Your task to perform on an android device: open a bookmark in the chrome app Image 0: 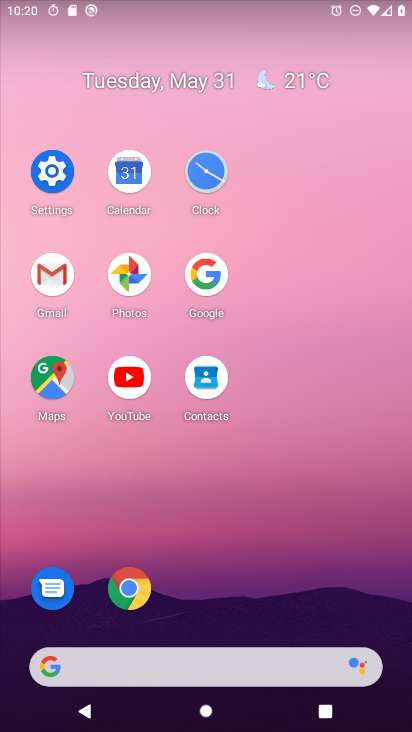
Step 0: click (123, 583)
Your task to perform on an android device: open a bookmark in the chrome app Image 1: 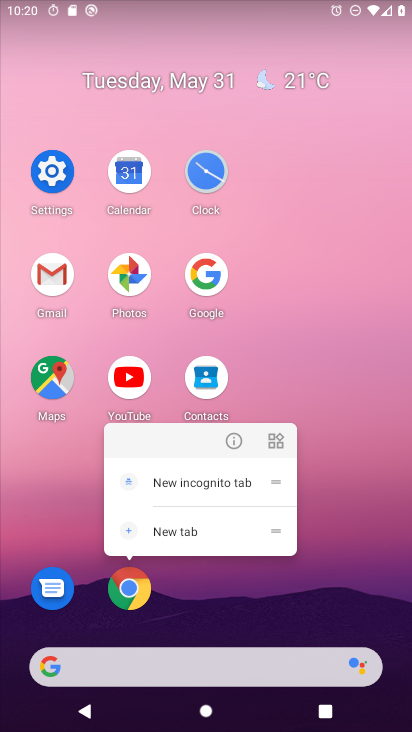
Step 1: click (133, 597)
Your task to perform on an android device: open a bookmark in the chrome app Image 2: 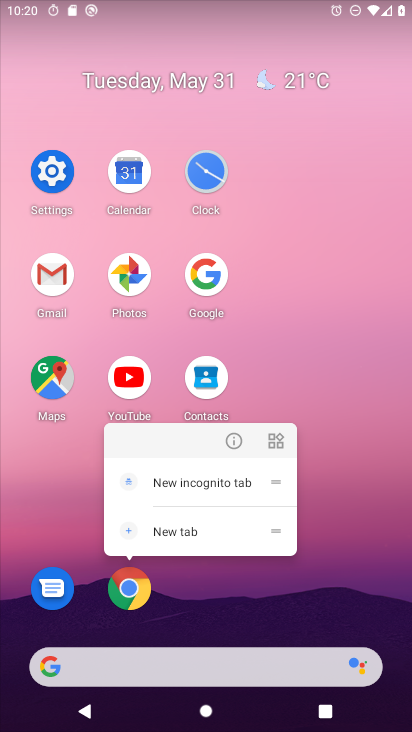
Step 2: click (133, 598)
Your task to perform on an android device: open a bookmark in the chrome app Image 3: 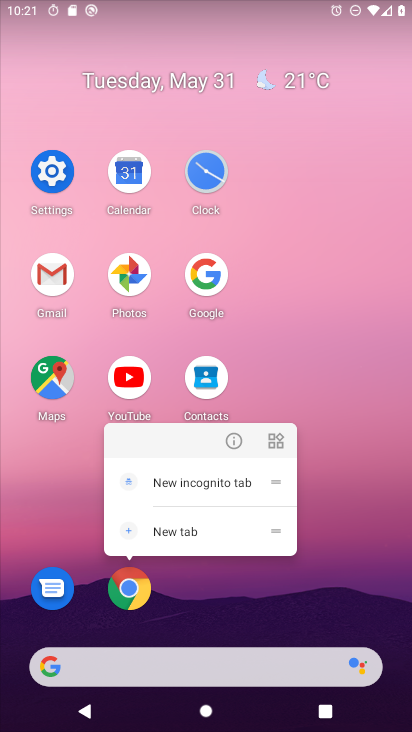
Step 3: click (137, 604)
Your task to perform on an android device: open a bookmark in the chrome app Image 4: 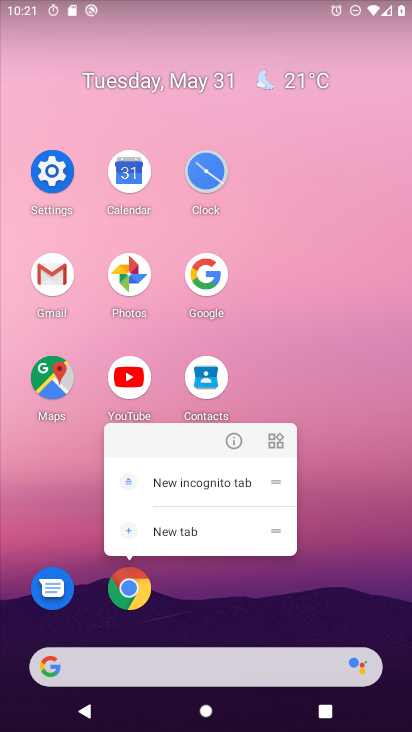
Step 4: click (136, 605)
Your task to perform on an android device: open a bookmark in the chrome app Image 5: 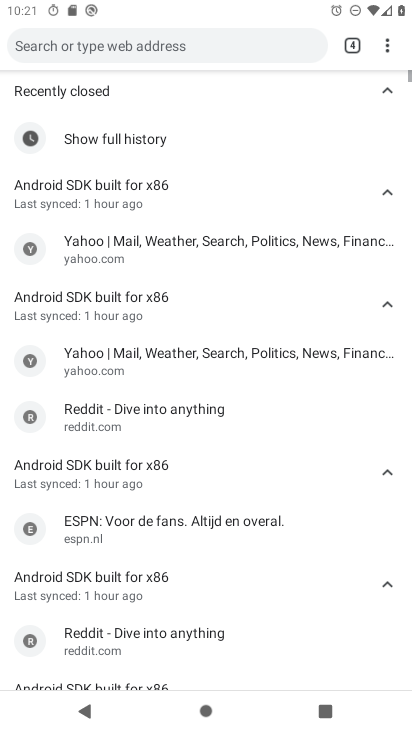
Step 5: click (389, 36)
Your task to perform on an android device: open a bookmark in the chrome app Image 6: 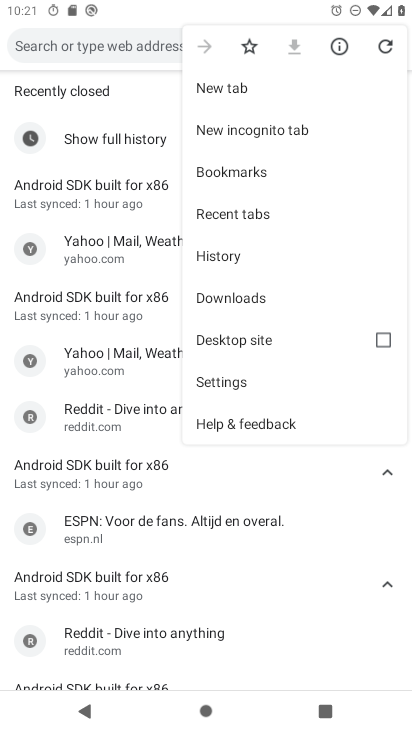
Step 6: click (285, 178)
Your task to perform on an android device: open a bookmark in the chrome app Image 7: 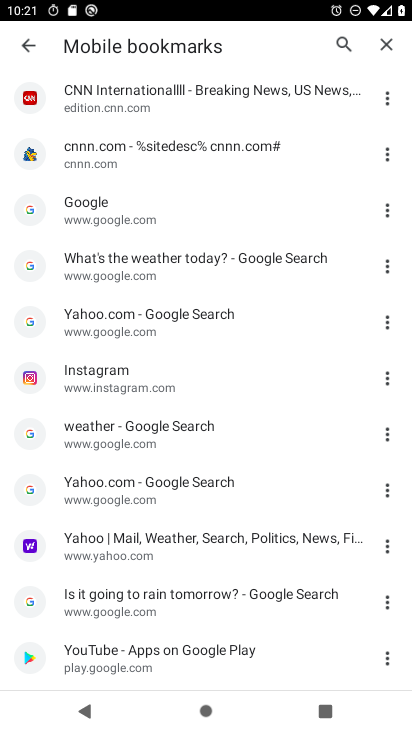
Step 7: click (195, 163)
Your task to perform on an android device: open a bookmark in the chrome app Image 8: 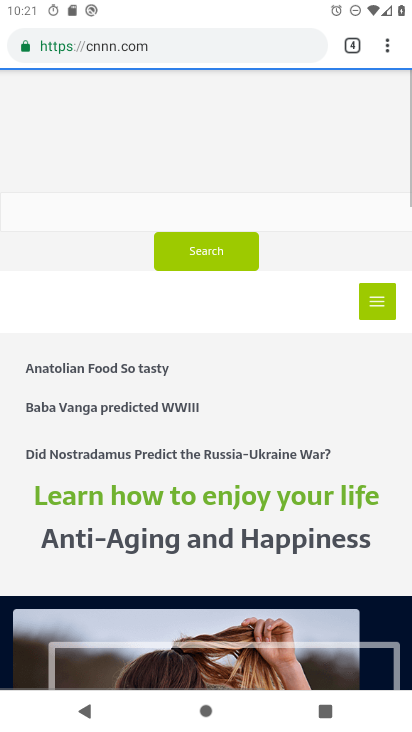
Step 8: task complete